Your task to perform on an android device: Clear the shopping cart on newegg. Image 0: 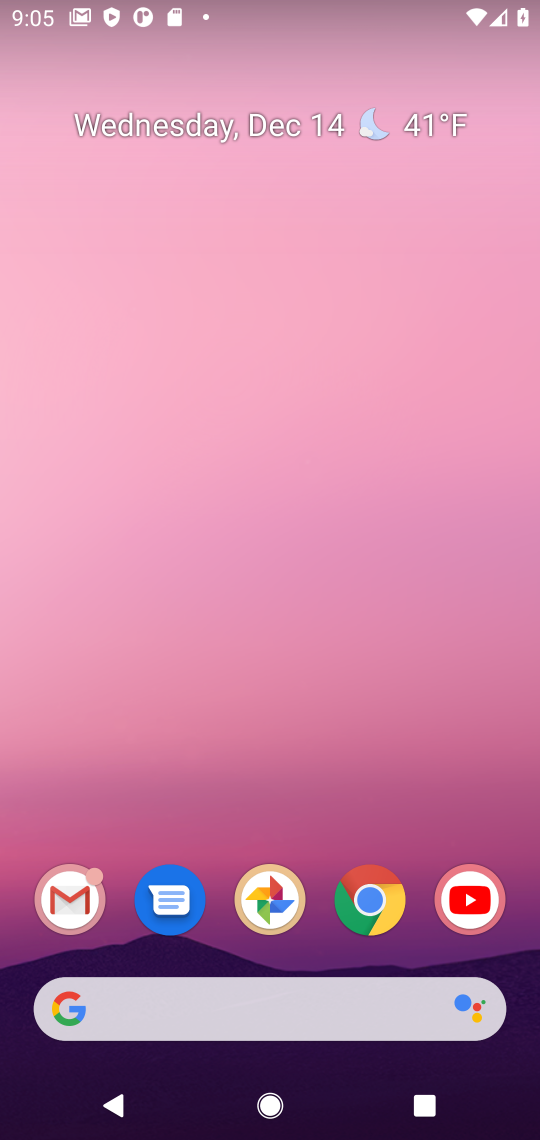
Step 0: click (371, 917)
Your task to perform on an android device: Clear the shopping cart on newegg. Image 1: 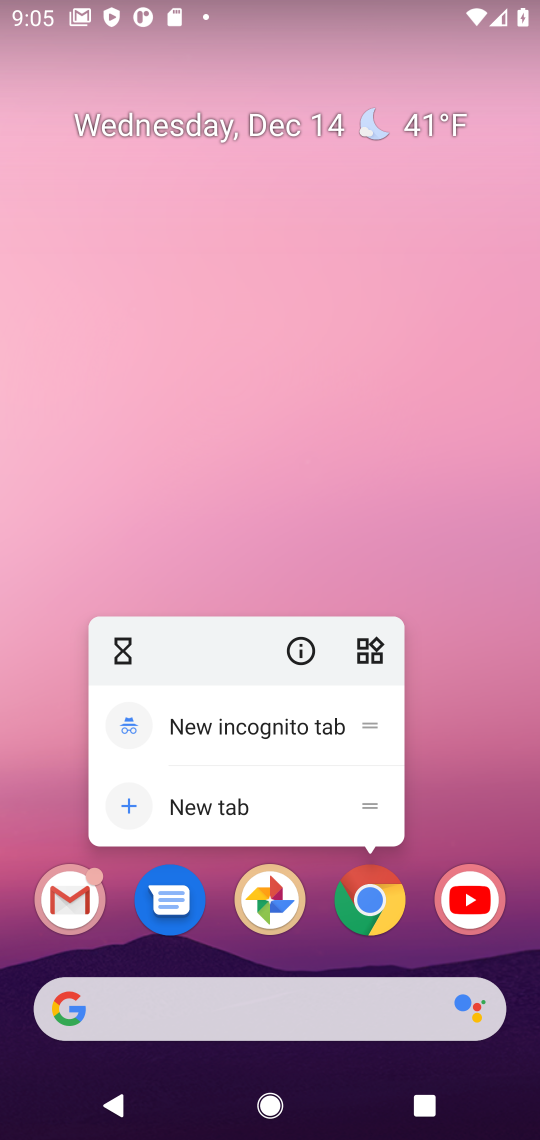
Step 1: click (372, 909)
Your task to perform on an android device: Clear the shopping cart on newegg. Image 2: 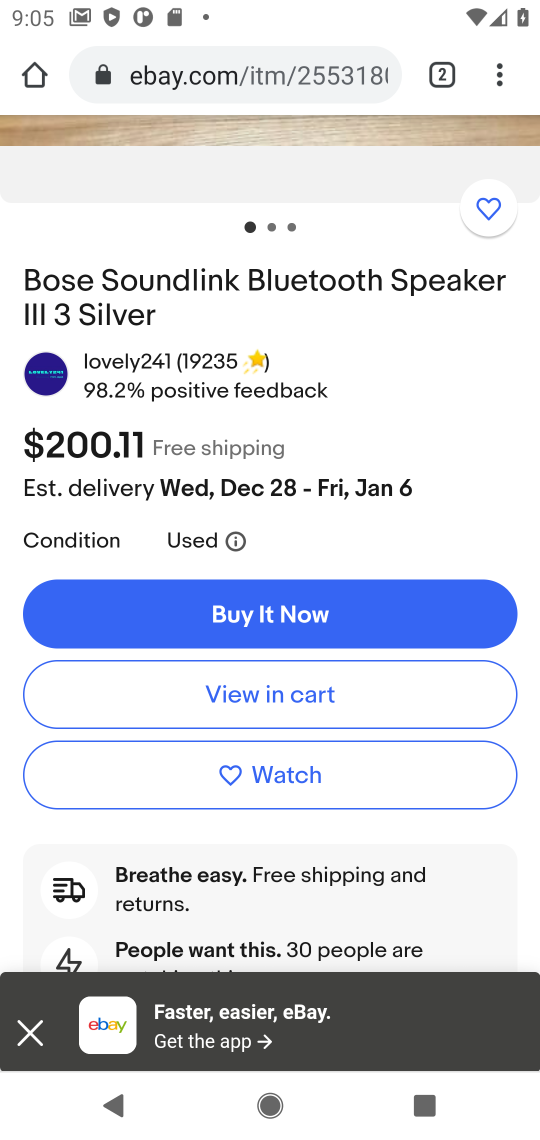
Step 2: click (220, 81)
Your task to perform on an android device: Clear the shopping cart on newegg. Image 3: 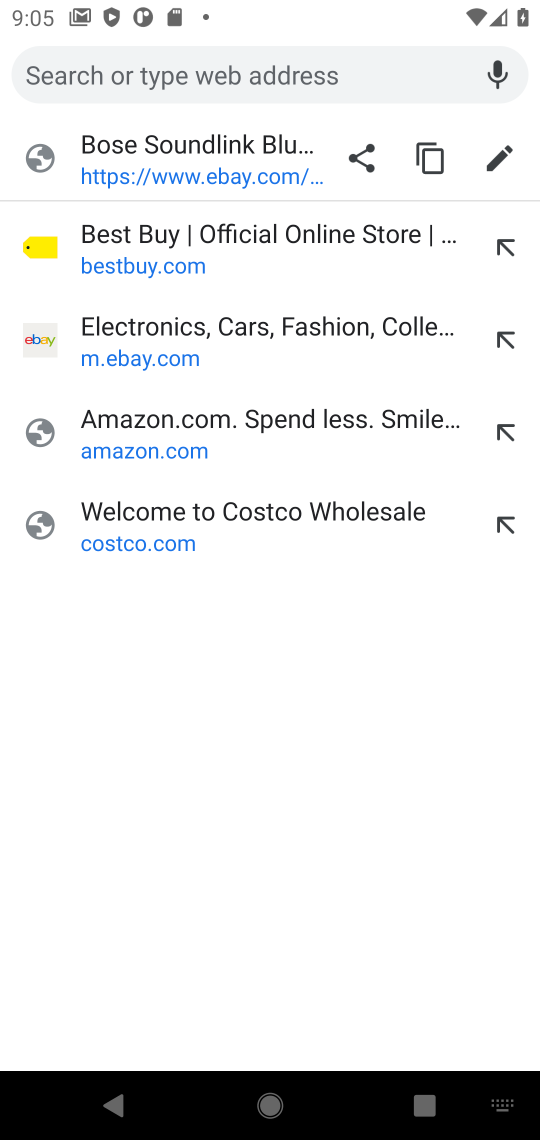
Step 3: type "newegg.com"
Your task to perform on an android device: Clear the shopping cart on newegg. Image 4: 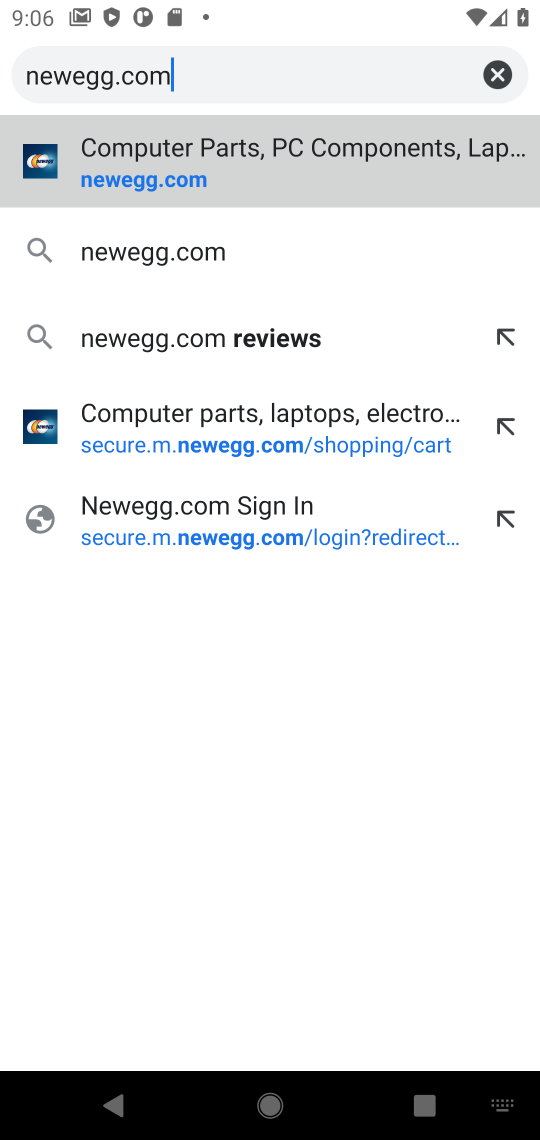
Step 4: click (135, 187)
Your task to perform on an android device: Clear the shopping cart on newegg. Image 5: 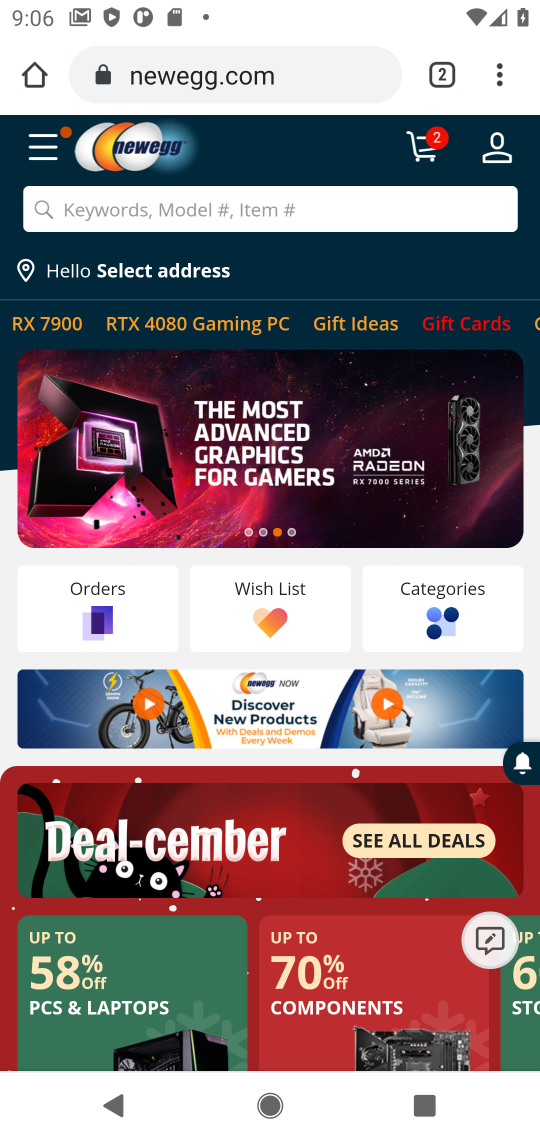
Step 5: click (414, 150)
Your task to perform on an android device: Clear the shopping cart on newegg. Image 6: 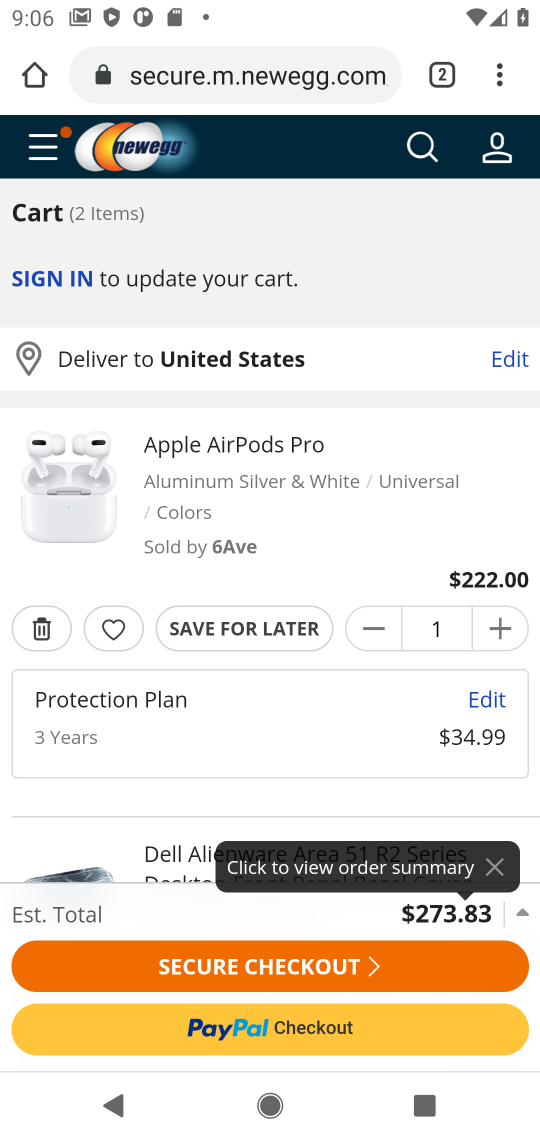
Step 6: click (40, 634)
Your task to perform on an android device: Clear the shopping cart on newegg. Image 7: 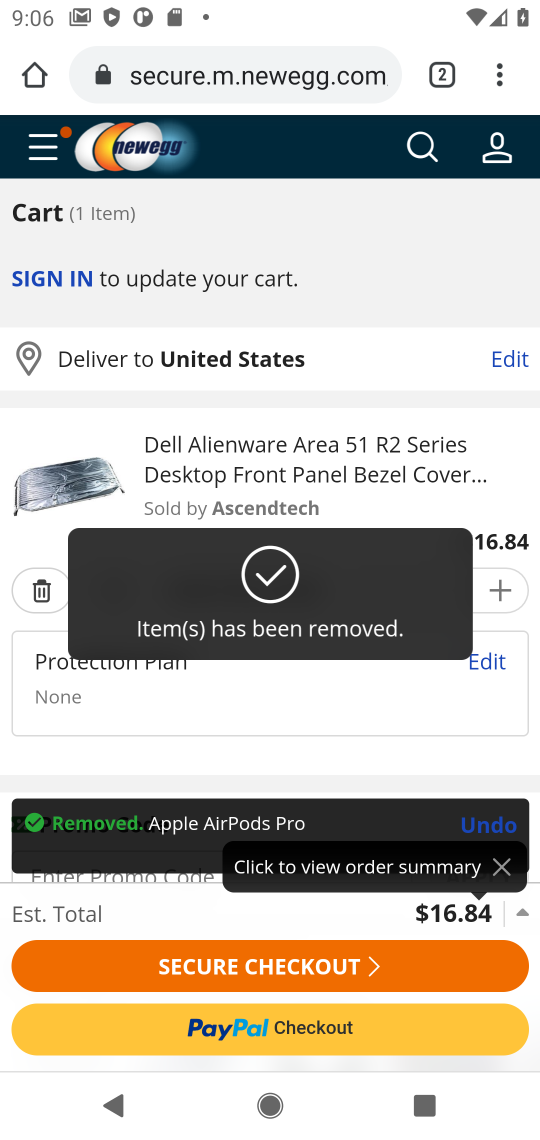
Step 7: click (40, 584)
Your task to perform on an android device: Clear the shopping cart on newegg. Image 8: 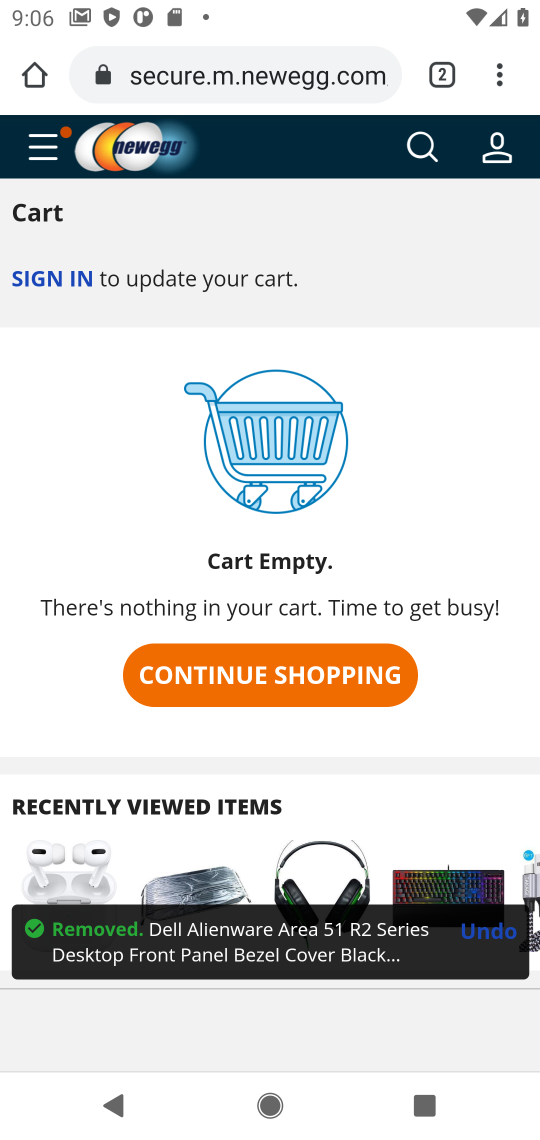
Step 8: task complete